Your task to perform on an android device: open chrome privacy settings Image 0: 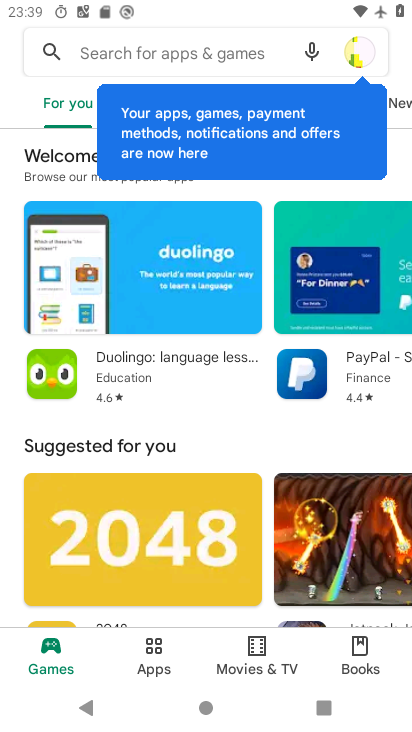
Step 0: press home button
Your task to perform on an android device: open chrome privacy settings Image 1: 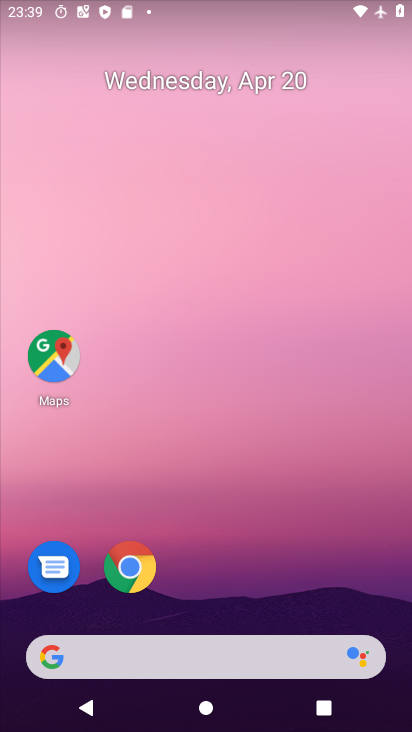
Step 1: drag from (224, 607) to (252, 187)
Your task to perform on an android device: open chrome privacy settings Image 2: 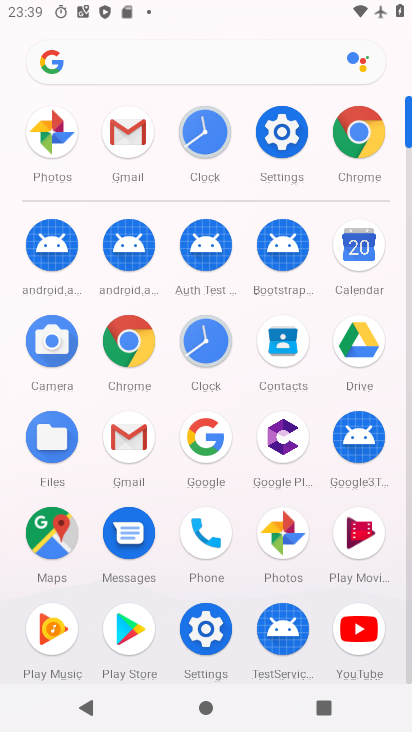
Step 2: click (361, 127)
Your task to perform on an android device: open chrome privacy settings Image 3: 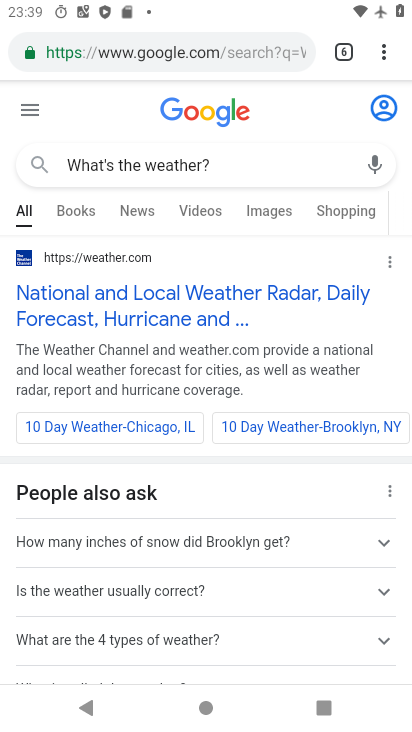
Step 3: click (382, 44)
Your task to perform on an android device: open chrome privacy settings Image 4: 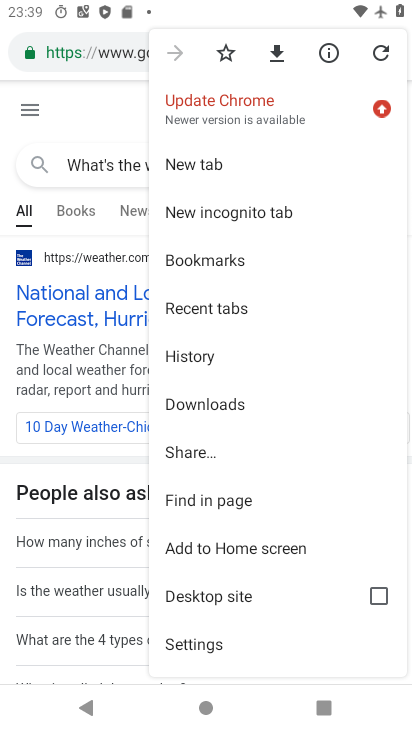
Step 4: click (199, 641)
Your task to perform on an android device: open chrome privacy settings Image 5: 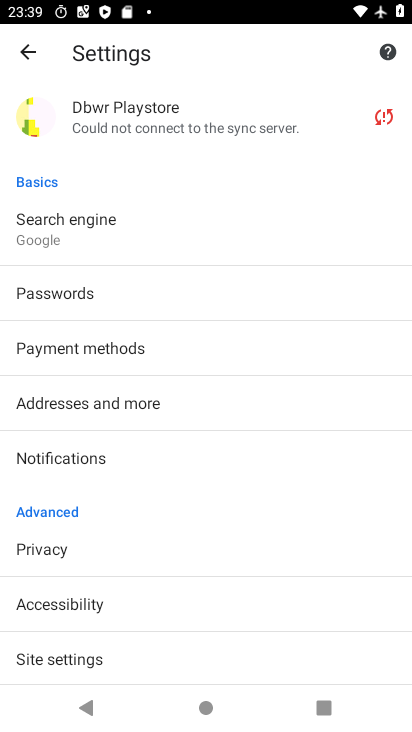
Step 5: click (131, 556)
Your task to perform on an android device: open chrome privacy settings Image 6: 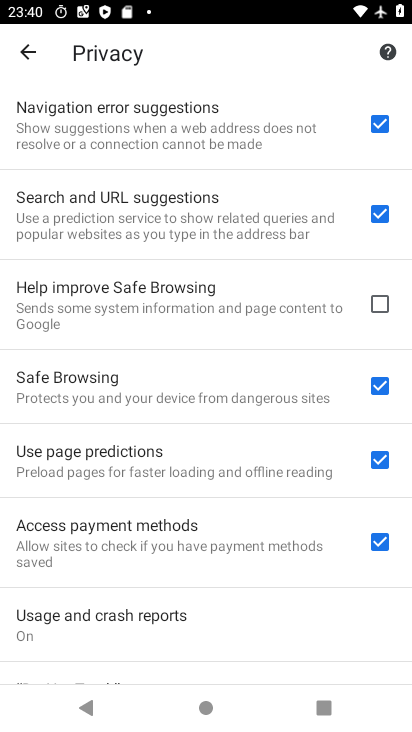
Step 6: task complete